Your task to perform on an android device: Set the phone to "Do not disturb". Image 0: 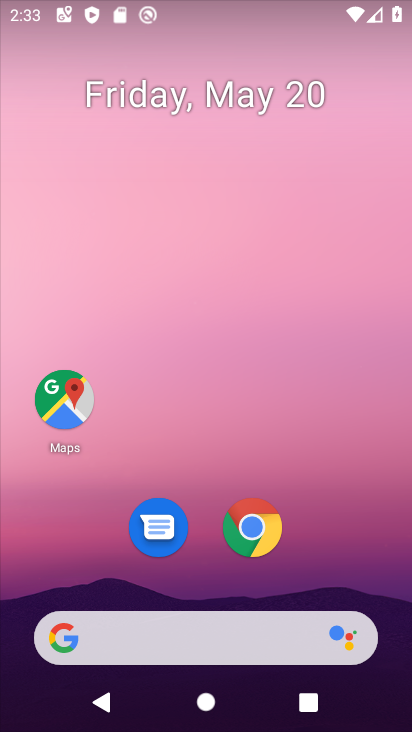
Step 0: drag from (246, 703) to (277, 29)
Your task to perform on an android device: Set the phone to "Do not disturb". Image 1: 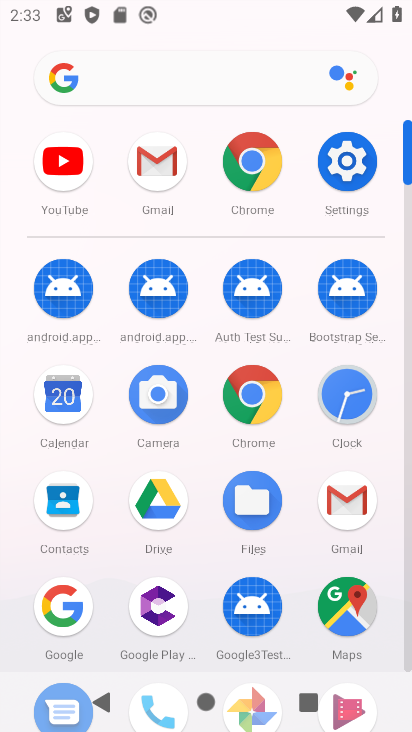
Step 1: click (336, 161)
Your task to perform on an android device: Set the phone to "Do not disturb". Image 2: 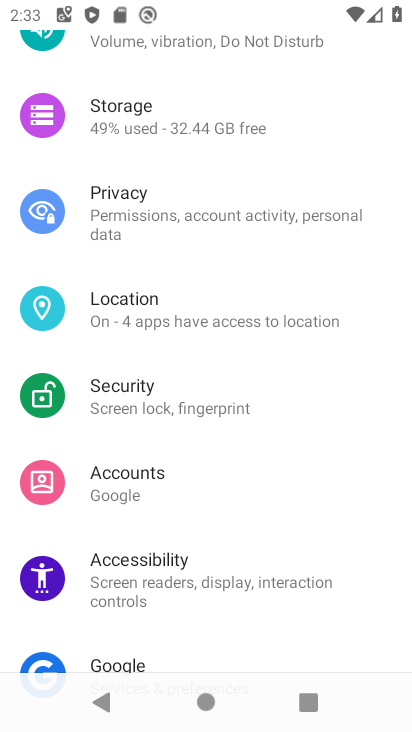
Step 2: click (304, 48)
Your task to perform on an android device: Set the phone to "Do not disturb". Image 3: 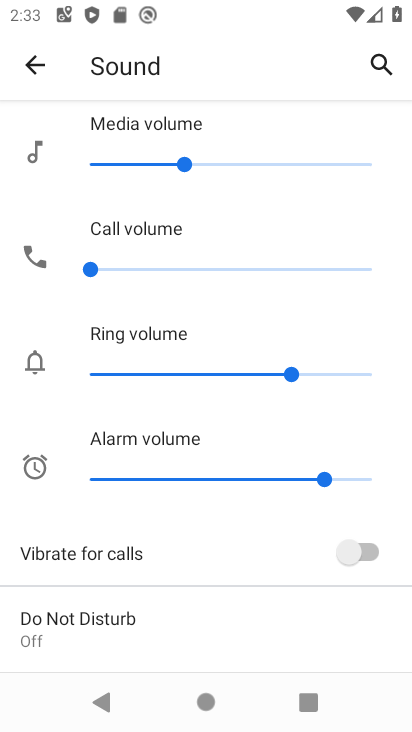
Step 3: task complete